Your task to perform on an android device: Check the weather Image 0: 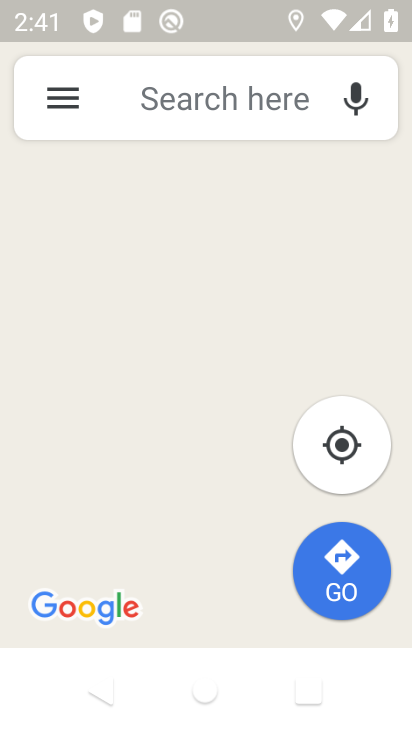
Step 0: drag from (101, 552) to (168, 267)
Your task to perform on an android device: Check the weather Image 1: 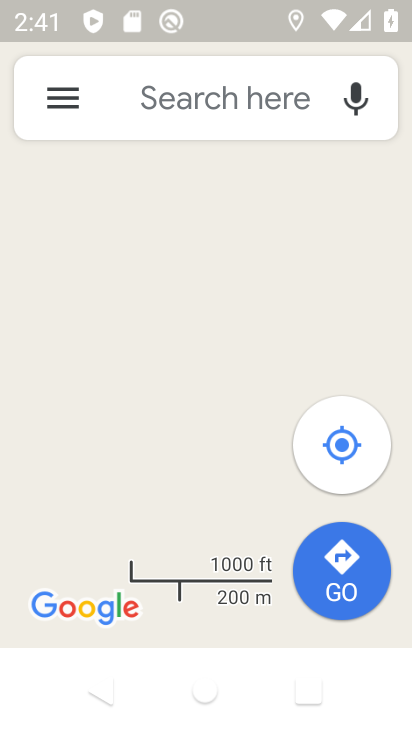
Step 1: press home button
Your task to perform on an android device: Check the weather Image 2: 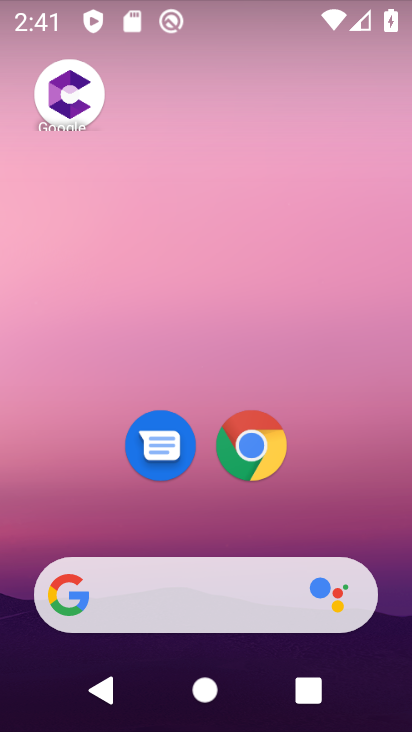
Step 2: drag from (37, 385) to (396, 298)
Your task to perform on an android device: Check the weather Image 3: 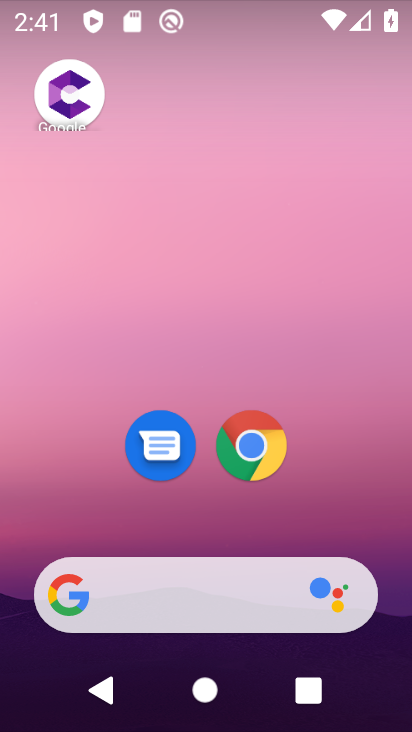
Step 3: drag from (13, 373) to (411, 254)
Your task to perform on an android device: Check the weather Image 4: 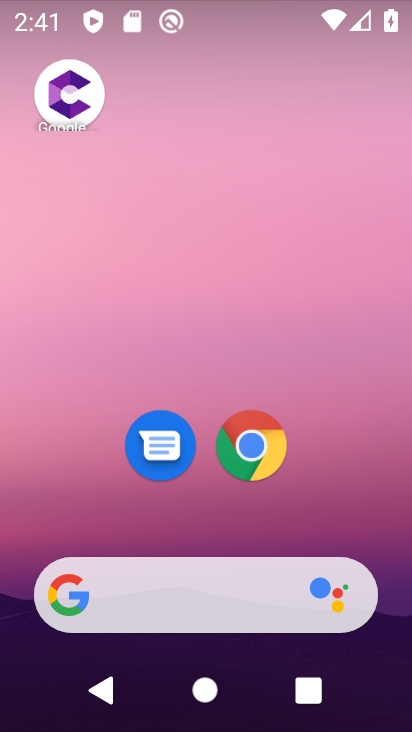
Step 4: drag from (7, 354) to (411, 266)
Your task to perform on an android device: Check the weather Image 5: 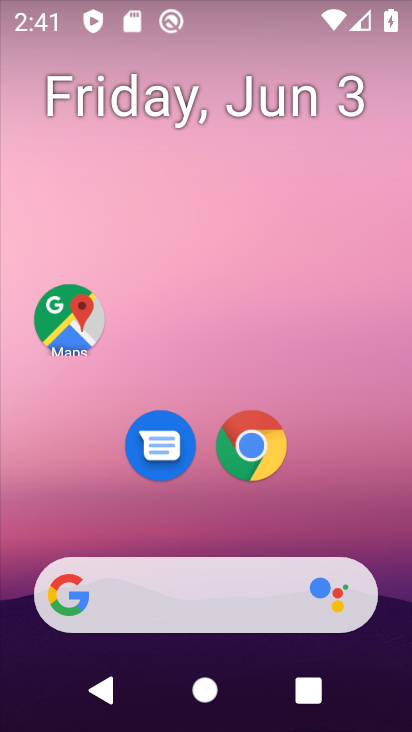
Step 5: drag from (4, 408) to (368, 326)
Your task to perform on an android device: Check the weather Image 6: 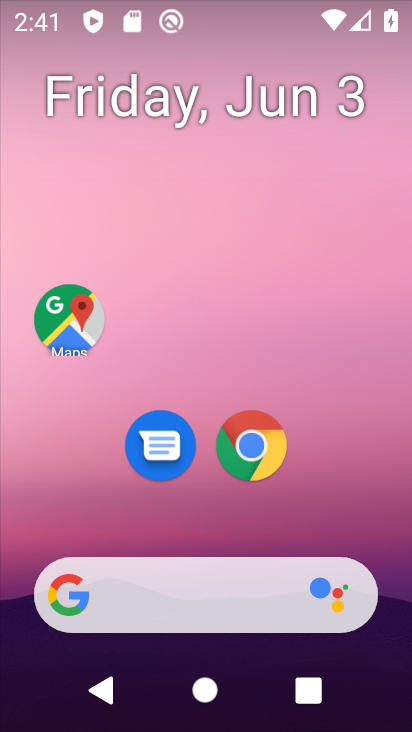
Step 6: drag from (4, 468) to (409, 452)
Your task to perform on an android device: Check the weather Image 7: 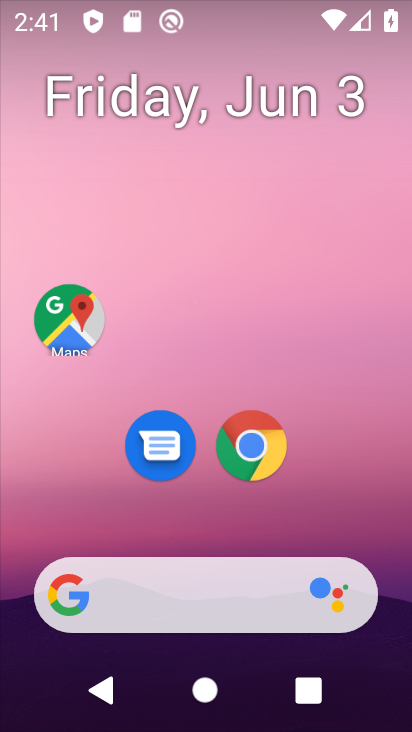
Step 7: drag from (60, 527) to (402, 541)
Your task to perform on an android device: Check the weather Image 8: 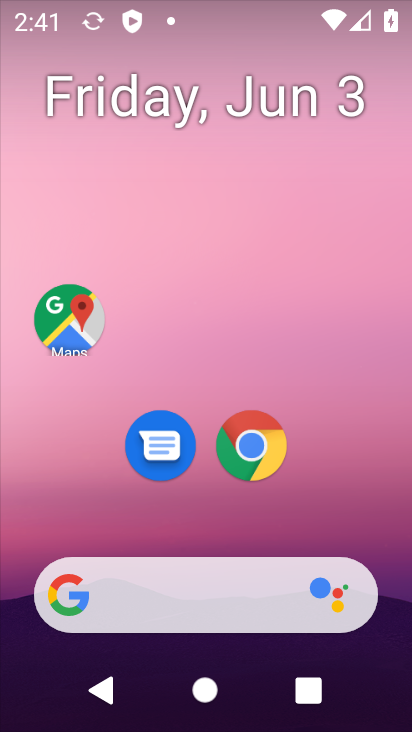
Step 8: drag from (39, 507) to (412, 493)
Your task to perform on an android device: Check the weather Image 9: 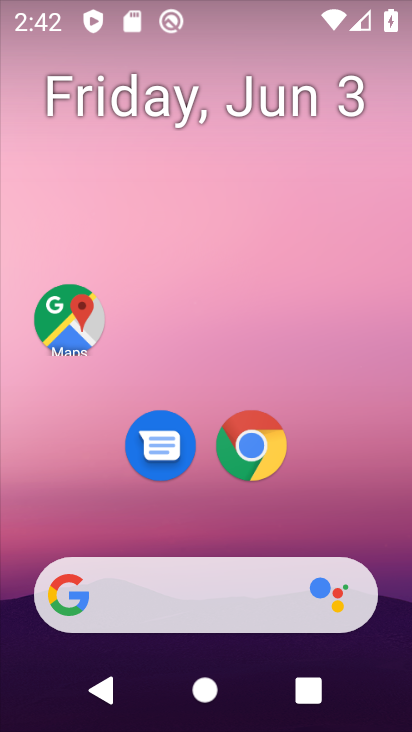
Step 9: drag from (12, 203) to (406, 167)
Your task to perform on an android device: Check the weather Image 10: 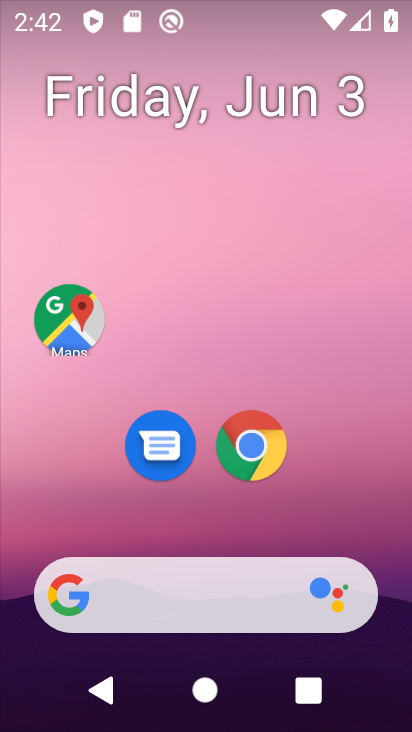
Step 10: click (161, 608)
Your task to perform on an android device: Check the weather Image 11: 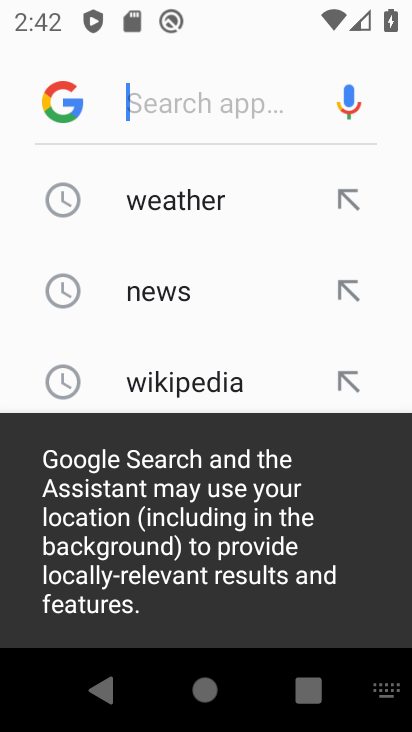
Step 11: click (203, 217)
Your task to perform on an android device: Check the weather Image 12: 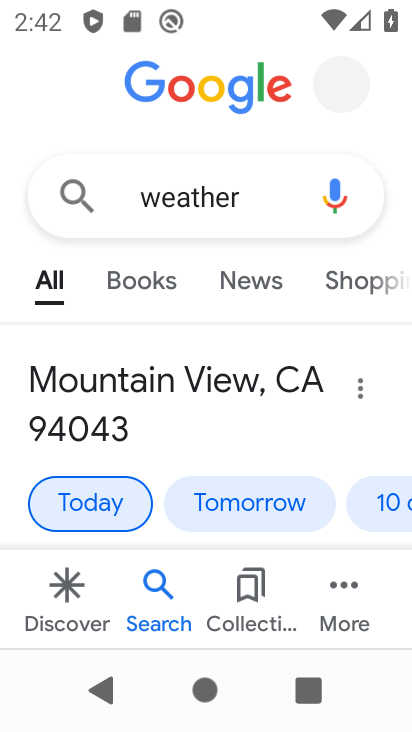
Step 12: task complete